Your task to perform on an android device: Go to Android settings Image 0: 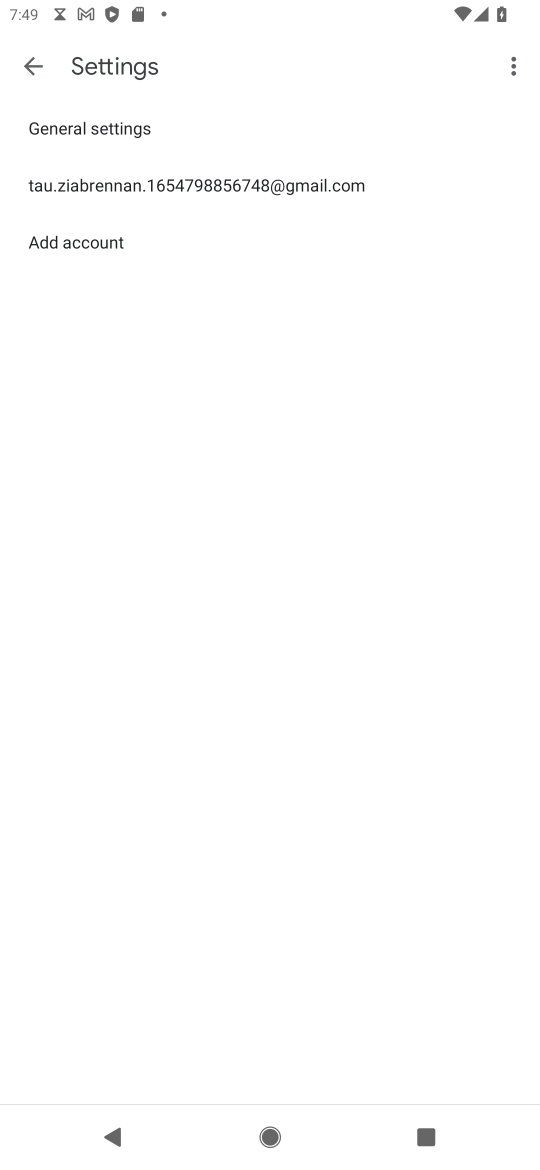
Step 0: press home button
Your task to perform on an android device: Go to Android settings Image 1: 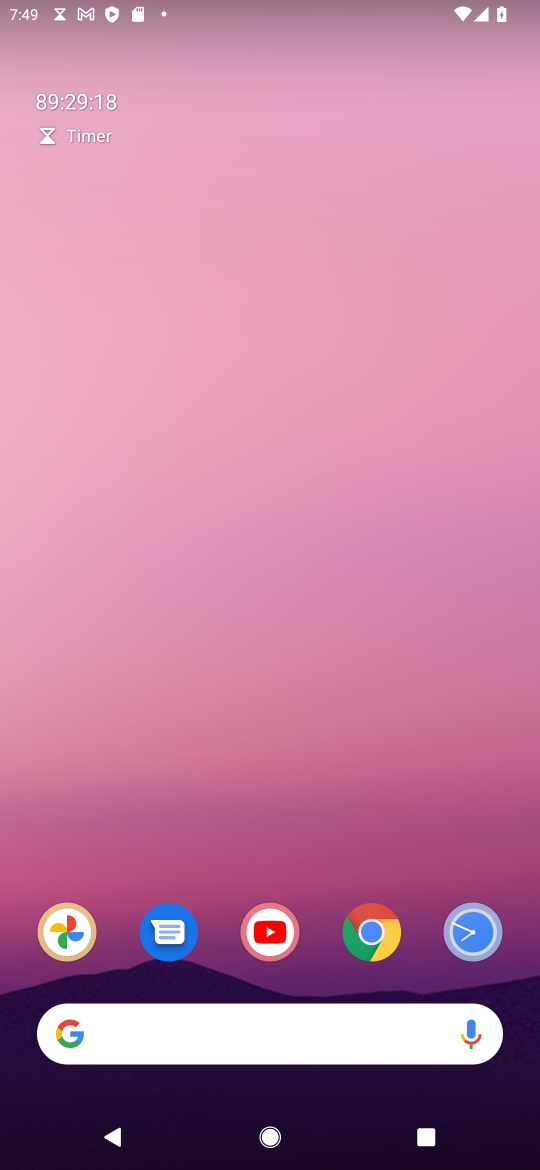
Step 1: drag from (308, 864) to (288, 100)
Your task to perform on an android device: Go to Android settings Image 2: 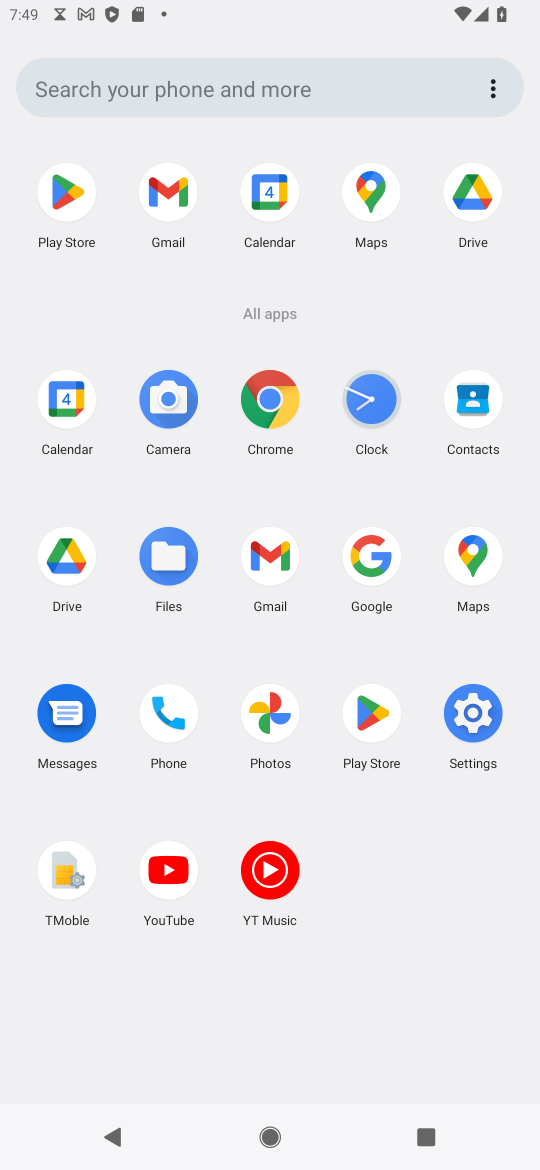
Step 2: click (483, 724)
Your task to perform on an android device: Go to Android settings Image 3: 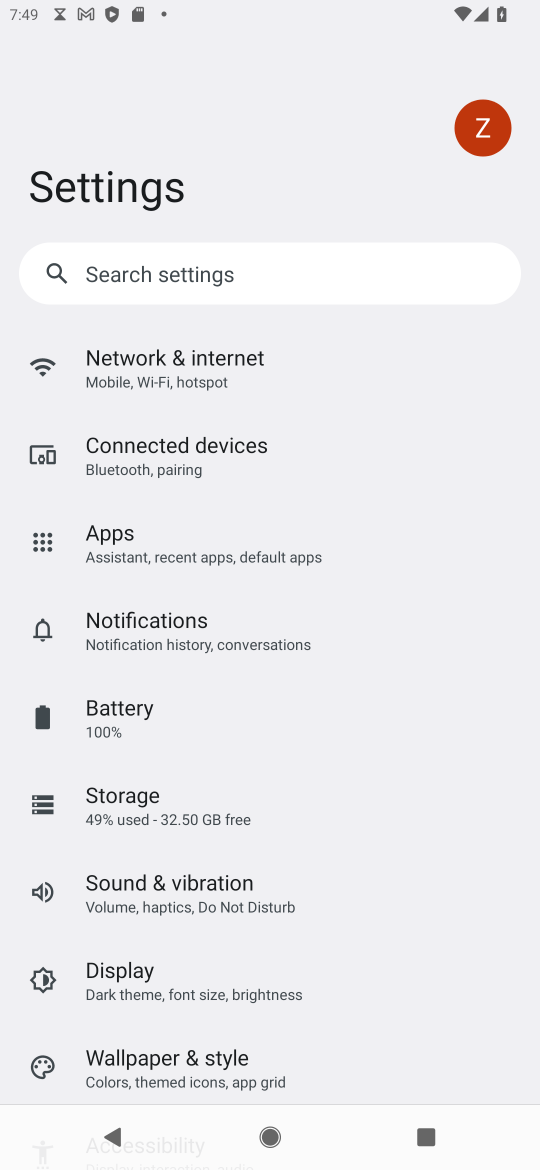
Step 3: drag from (281, 1099) to (278, 540)
Your task to perform on an android device: Go to Android settings Image 4: 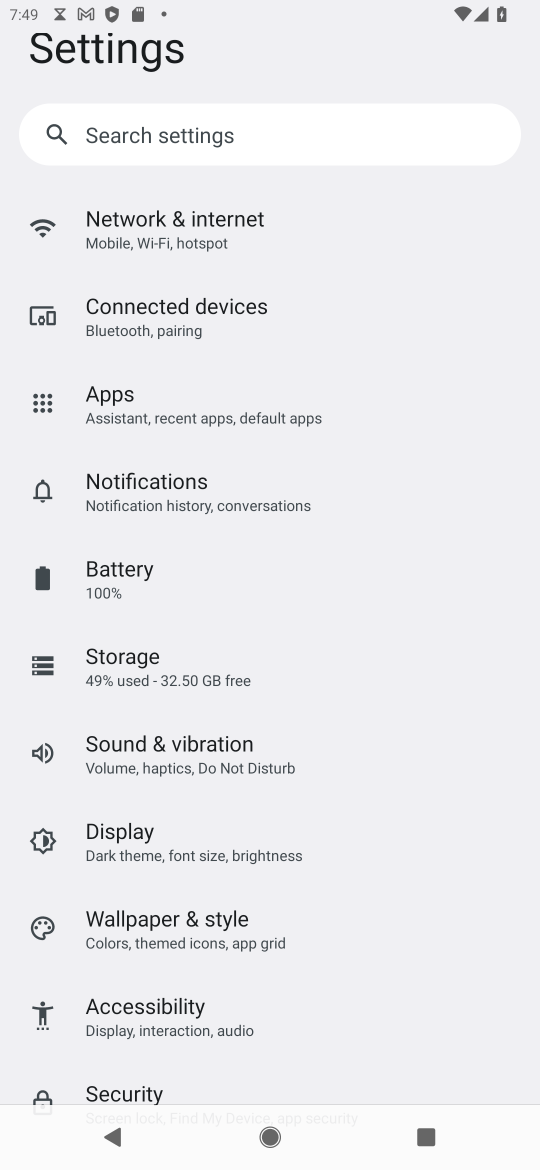
Step 4: drag from (235, 1109) to (215, 175)
Your task to perform on an android device: Go to Android settings Image 5: 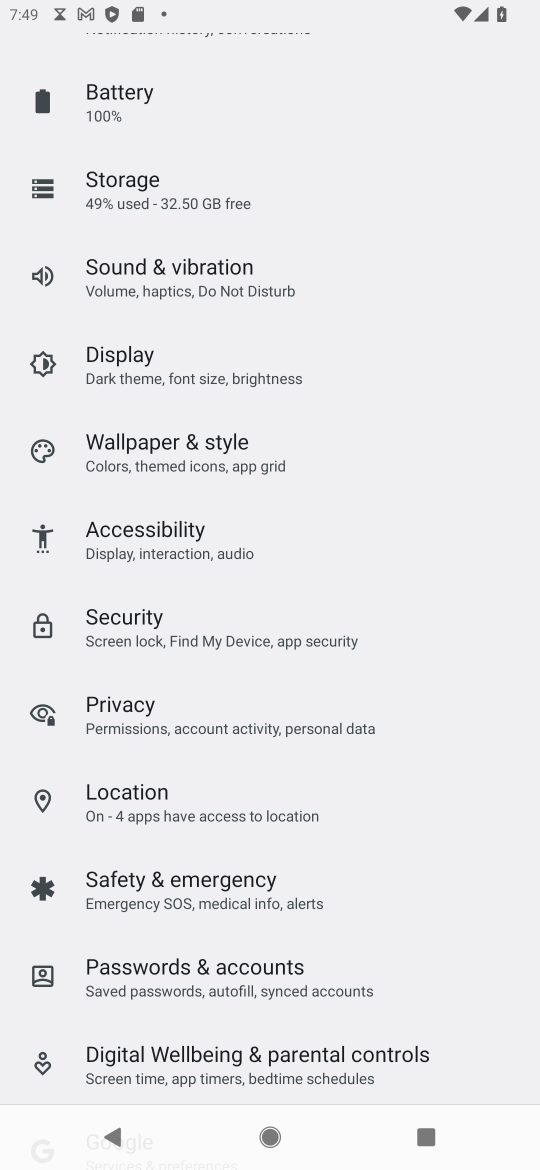
Step 5: drag from (231, 1099) to (182, 64)
Your task to perform on an android device: Go to Android settings Image 6: 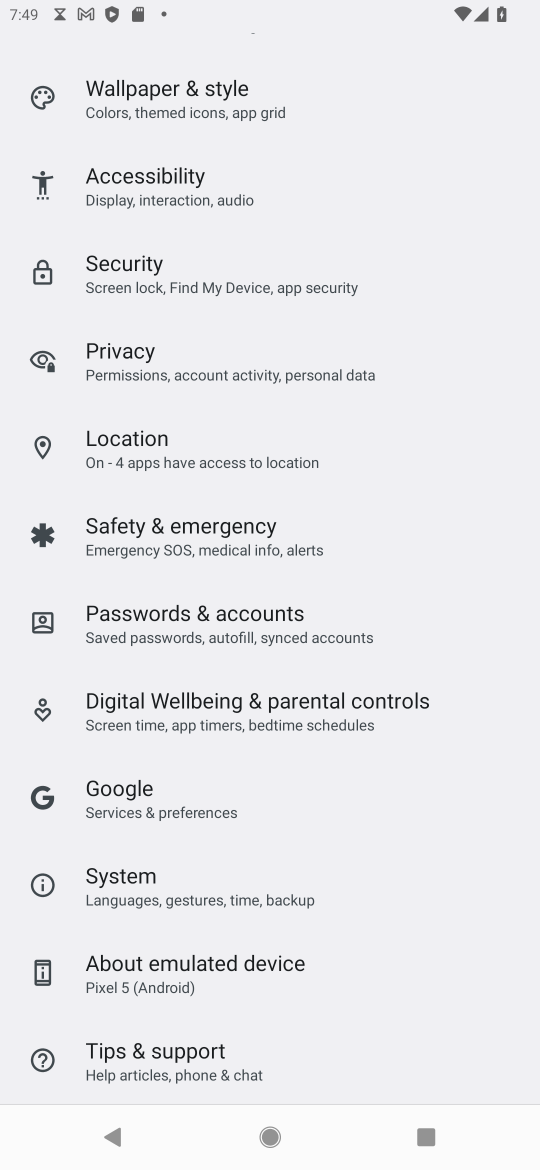
Step 6: click (206, 895)
Your task to perform on an android device: Go to Android settings Image 7: 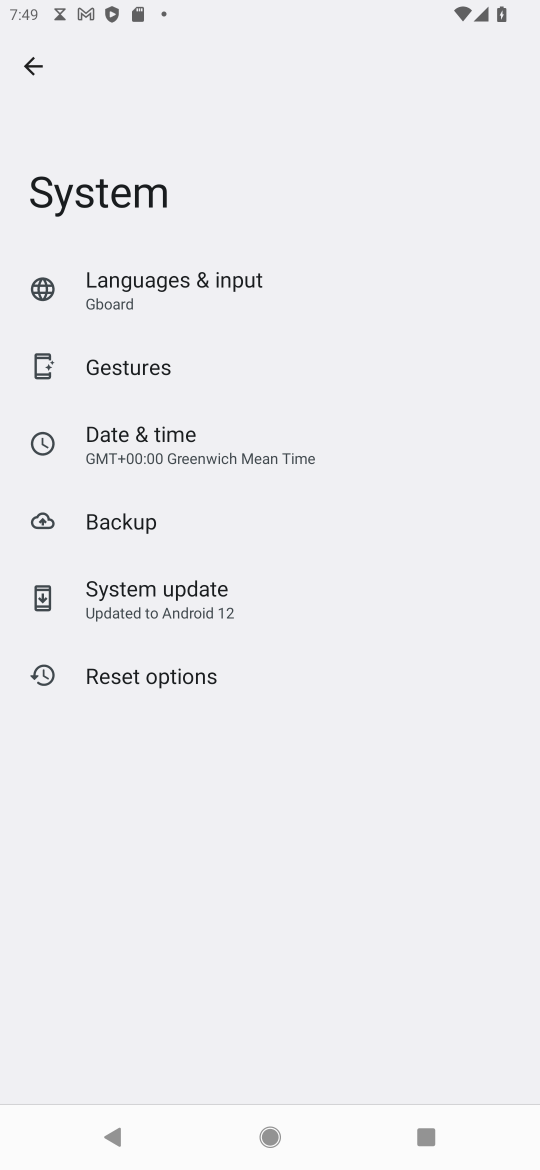
Step 7: task complete